Your task to perform on an android device: toggle improve location accuracy Image 0: 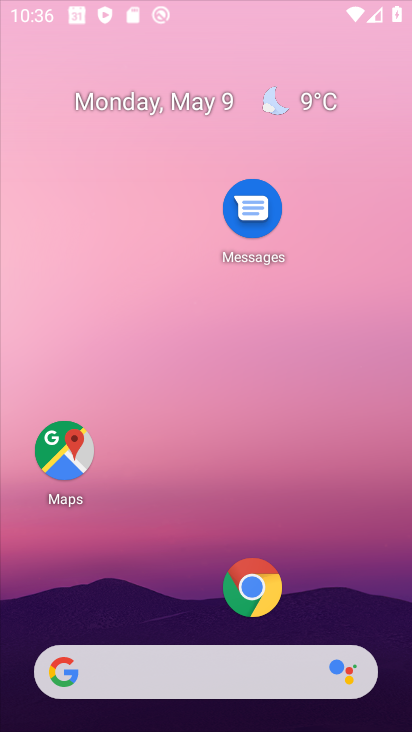
Step 0: click (260, 266)
Your task to perform on an android device: toggle improve location accuracy Image 1: 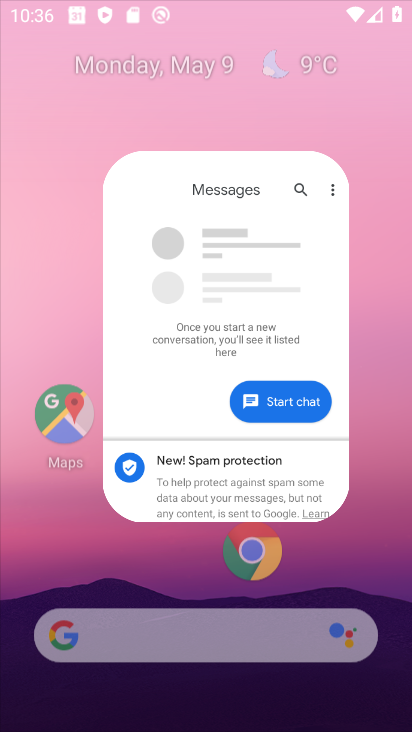
Step 1: drag from (195, 604) to (226, 155)
Your task to perform on an android device: toggle improve location accuracy Image 2: 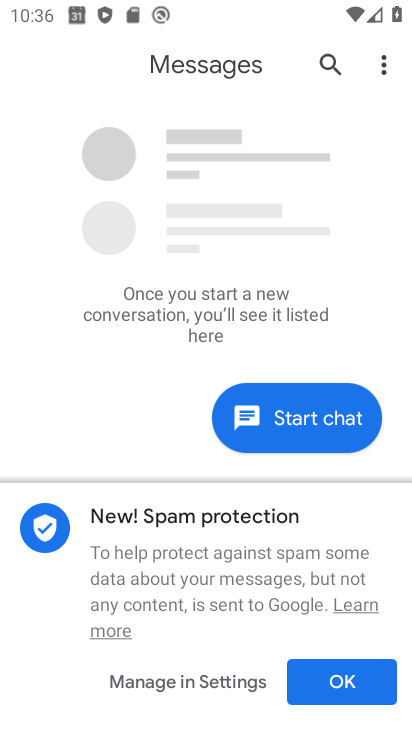
Step 2: press home button
Your task to perform on an android device: toggle improve location accuracy Image 3: 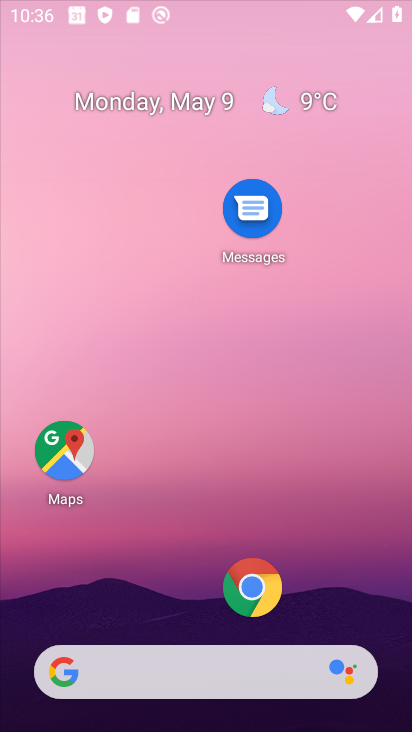
Step 3: drag from (192, 601) to (174, 246)
Your task to perform on an android device: toggle improve location accuracy Image 4: 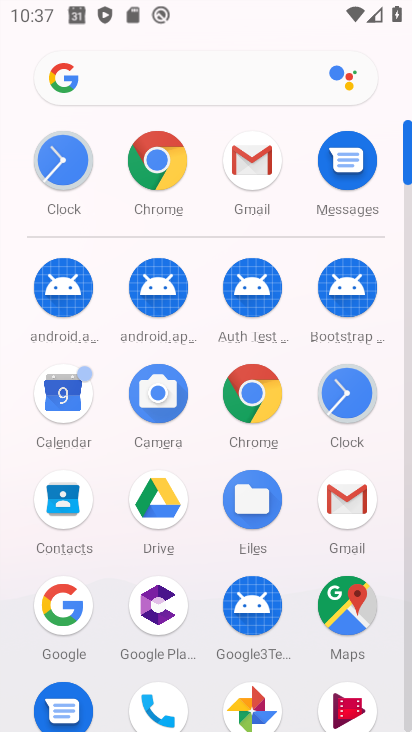
Step 4: drag from (204, 673) to (201, 245)
Your task to perform on an android device: toggle improve location accuracy Image 5: 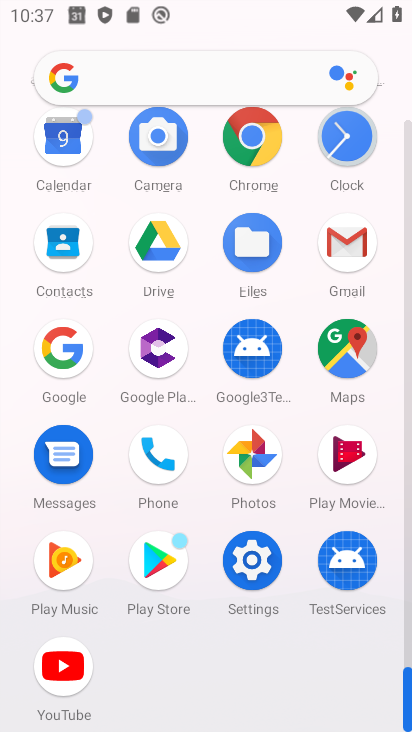
Step 5: click (251, 560)
Your task to perform on an android device: toggle improve location accuracy Image 6: 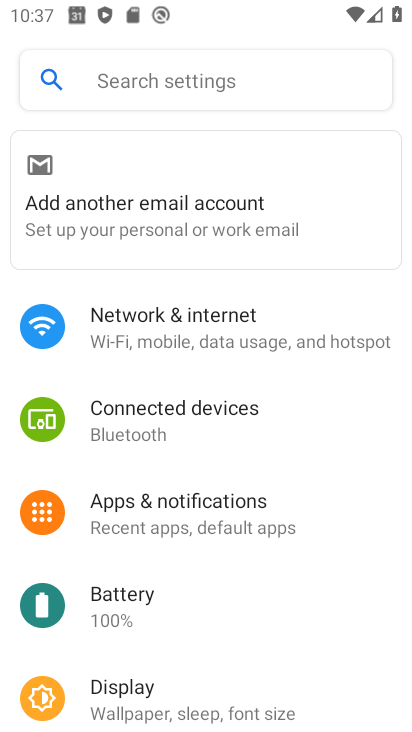
Step 6: drag from (204, 639) to (236, 193)
Your task to perform on an android device: toggle improve location accuracy Image 7: 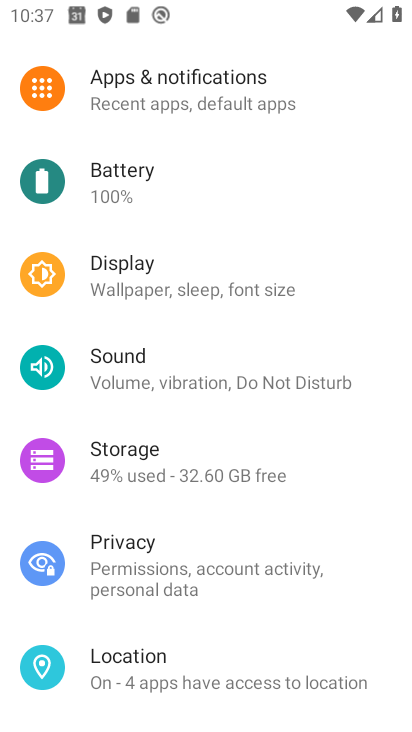
Step 7: drag from (180, 631) to (193, 267)
Your task to perform on an android device: toggle improve location accuracy Image 8: 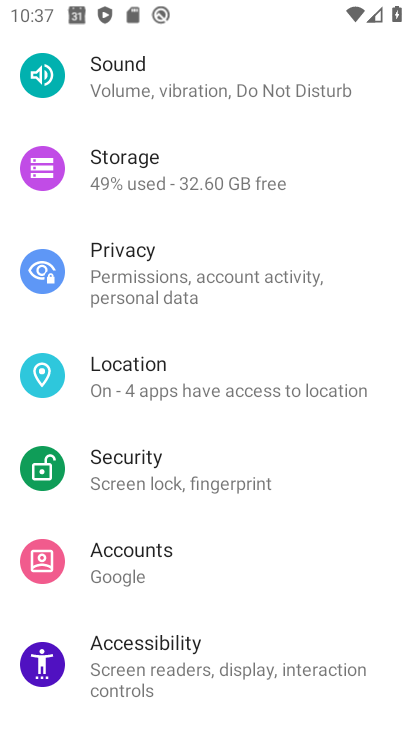
Step 8: click (158, 365)
Your task to perform on an android device: toggle improve location accuracy Image 9: 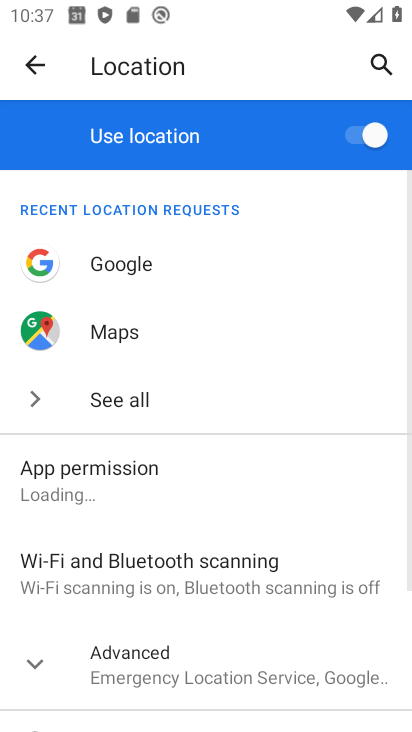
Step 9: drag from (269, 468) to (253, 176)
Your task to perform on an android device: toggle improve location accuracy Image 10: 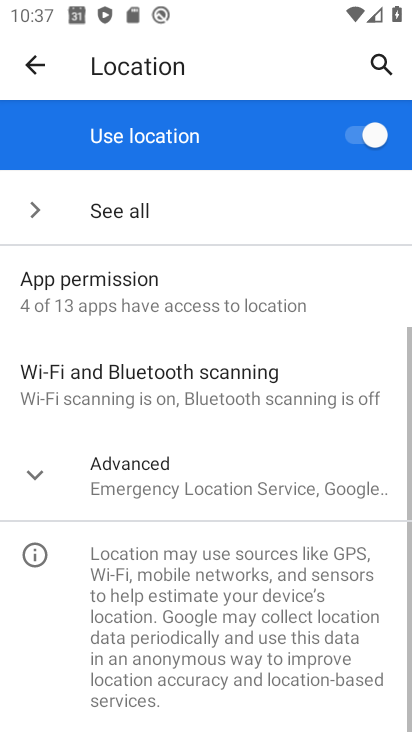
Step 10: click (163, 476)
Your task to perform on an android device: toggle improve location accuracy Image 11: 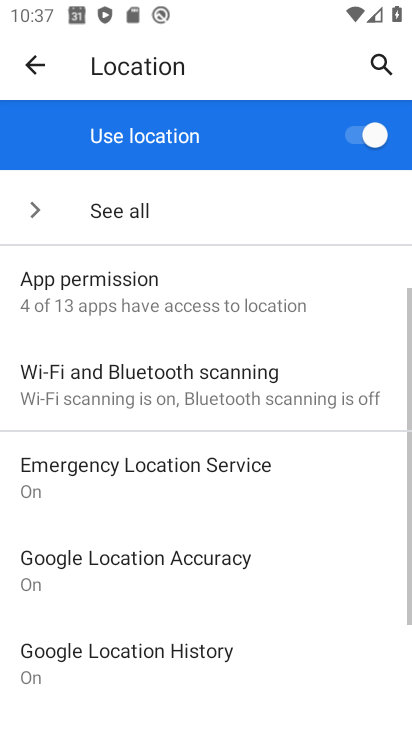
Step 11: drag from (267, 624) to (276, 322)
Your task to perform on an android device: toggle improve location accuracy Image 12: 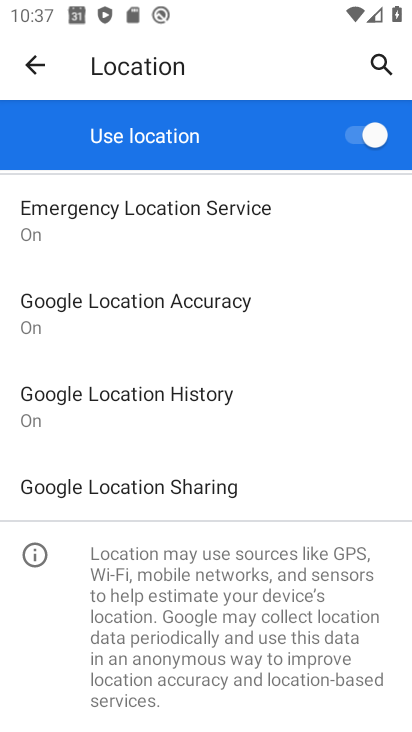
Step 12: click (167, 301)
Your task to perform on an android device: toggle improve location accuracy Image 13: 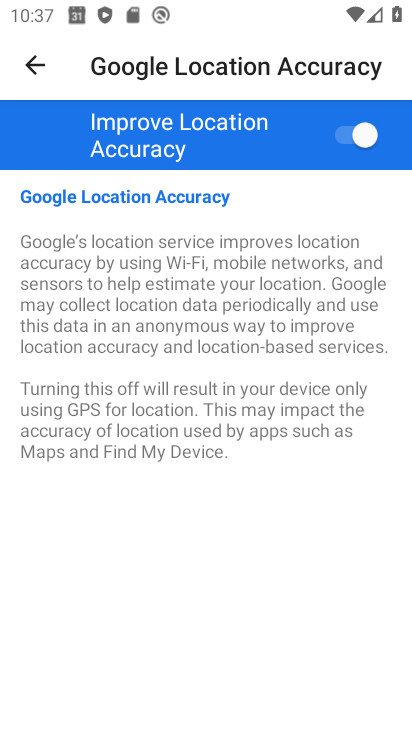
Step 13: task complete